Your task to perform on an android device: Open Yahoo.com Image 0: 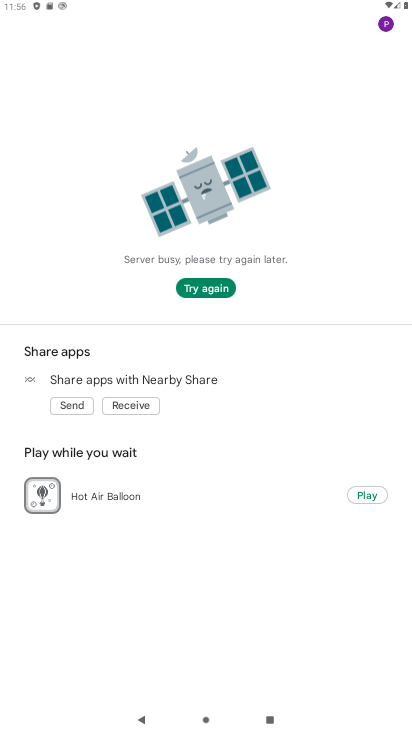
Step 0: press home button
Your task to perform on an android device: Open Yahoo.com Image 1: 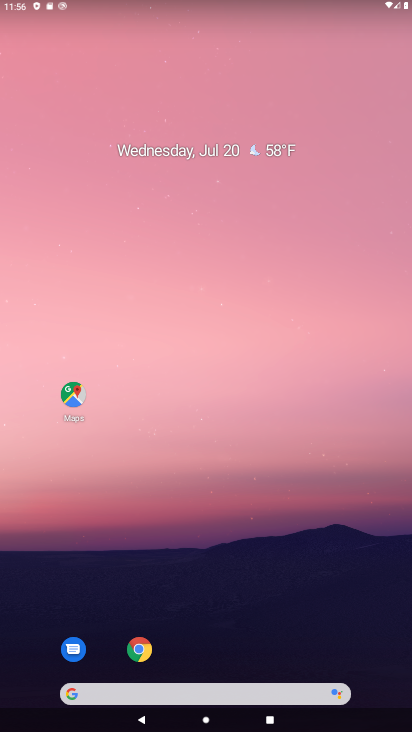
Step 1: drag from (243, 616) to (241, 292)
Your task to perform on an android device: Open Yahoo.com Image 2: 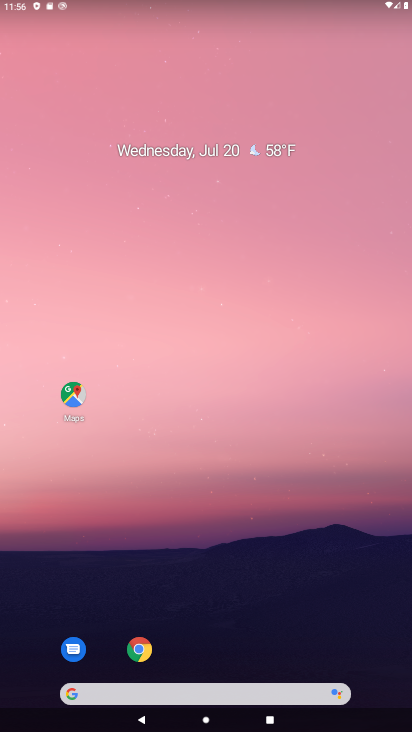
Step 2: drag from (294, 629) to (284, 451)
Your task to perform on an android device: Open Yahoo.com Image 3: 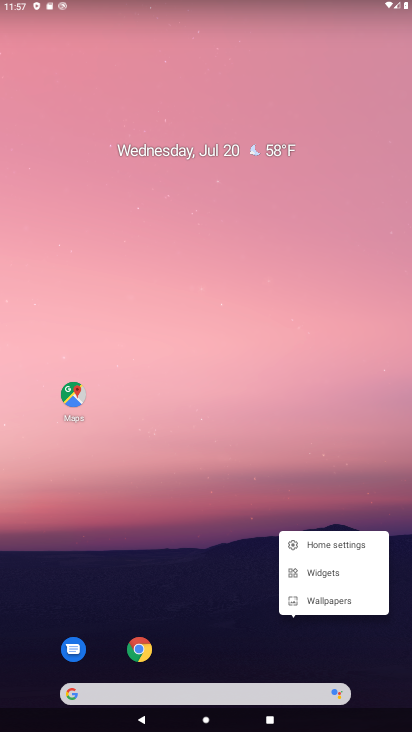
Step 3: click (151, 654)
Your task to perform on an android device: Open Yahoo.com Image 4: 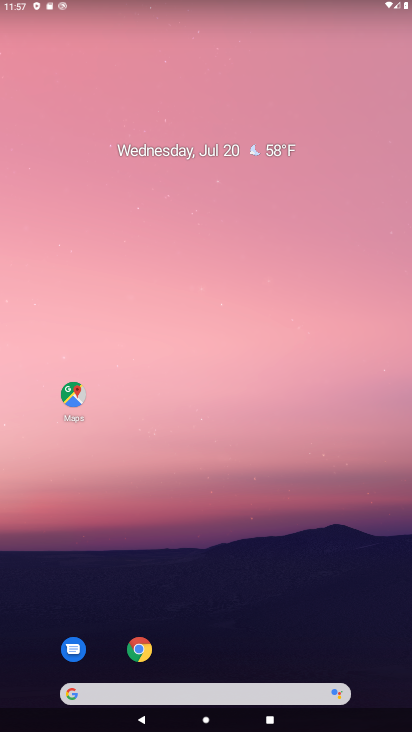
Step 4: click (140, 654)
Your task to perform on an android device: Open Yahoo.com Image 5: 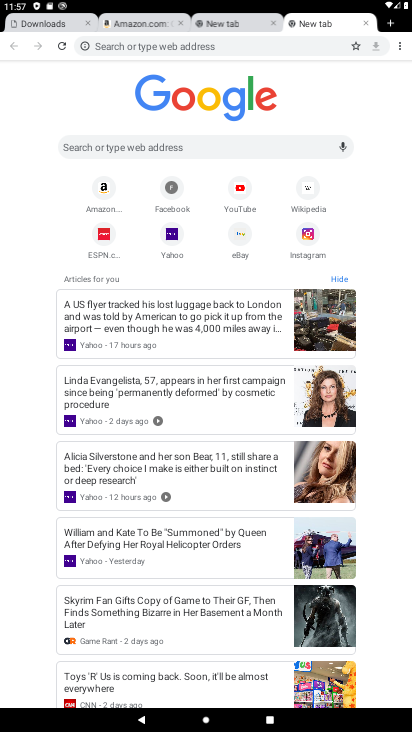
Step 5: click (174, 242)
Your task to perform on an android device: Open Yahoo.com Image 6: 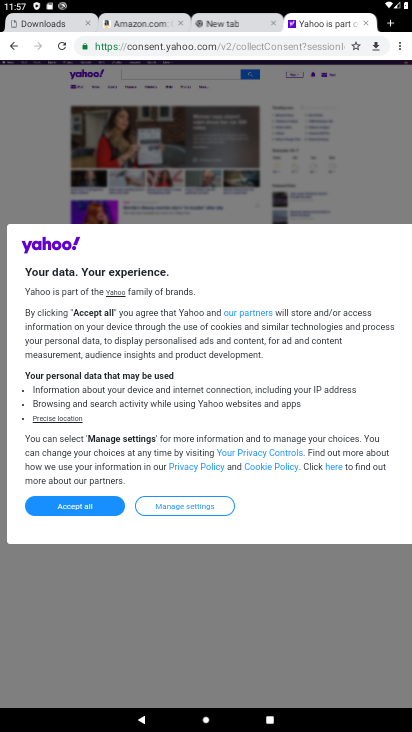
Step 6: task complete